Your task to perform on an android device: change your default location settings in chrome Image 0: 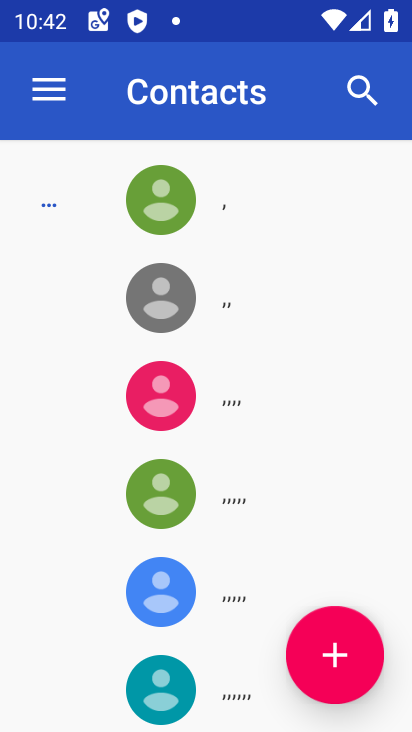
Step 0: press home button
Your task to perform on an android device: change your default location settings in chrome Image 1: 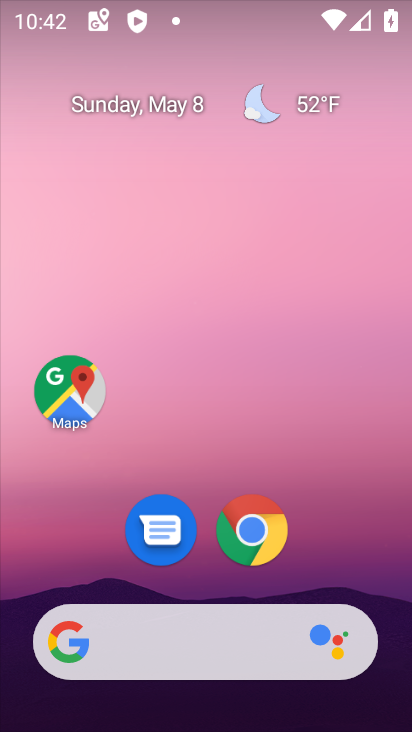
Step 1: drag from (355, 541) to (322, 183)
Your task to perform on an android device: change your default location settings in chrome Image 2: 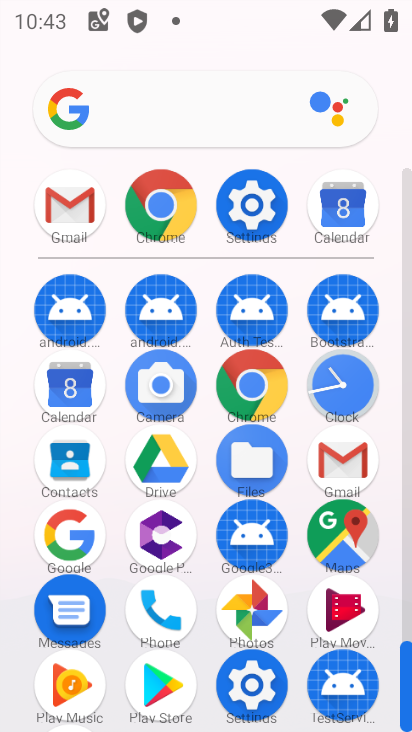
Step 2: click (234, 377)
Your task to perform on an android device: change your default location settings in chrome Image 3: 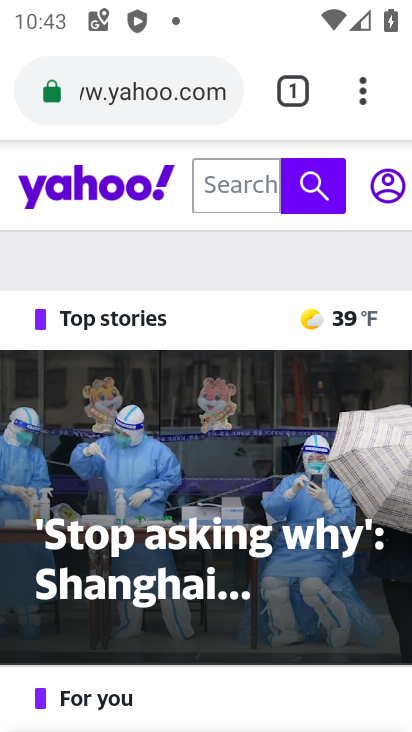
Step 3: drag from (369, 113) to (157, 559)
Your task to perform on an android device: change your default location settings in chrome Image 4: 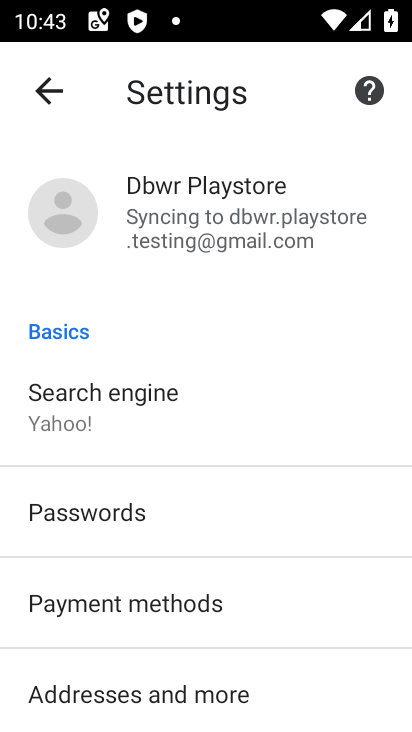
Step 4: click (119, 417)
Your task to perform on an android device: change your default location settings in chrome Image 5: 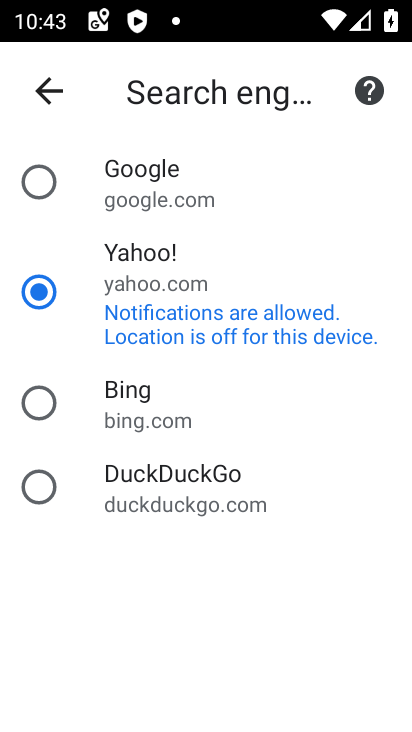
Step 5: click (30, 186)
Your task to perform on an android device: change your default location settings in chrome Image 6: 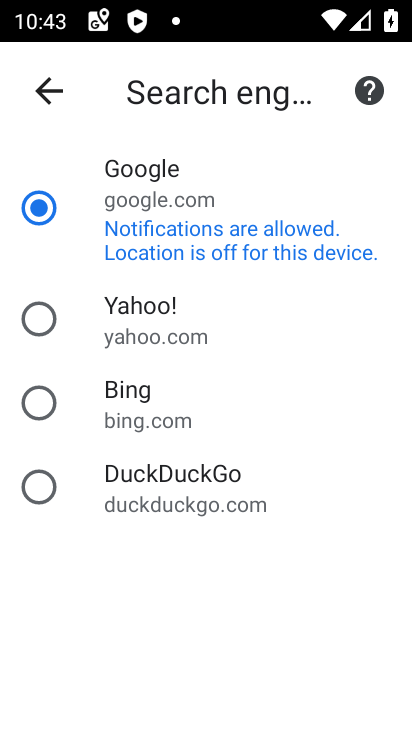
Step 6: task complete